Your task to perform on an android device: Search for a new blush Image 0: 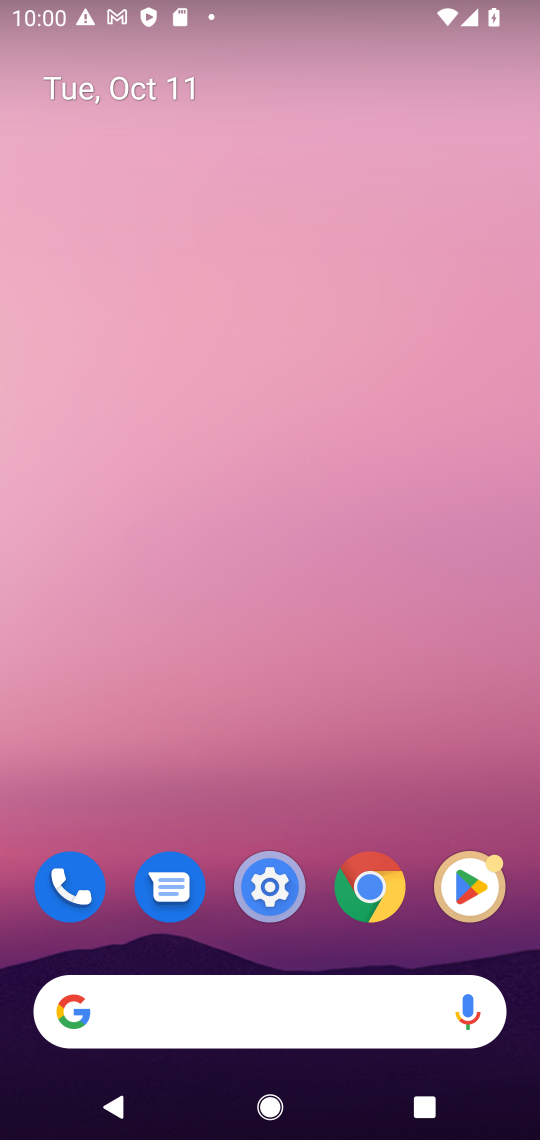
Step 0: press home button
Your task to perform on an android device: Search for a new blush Image 1: 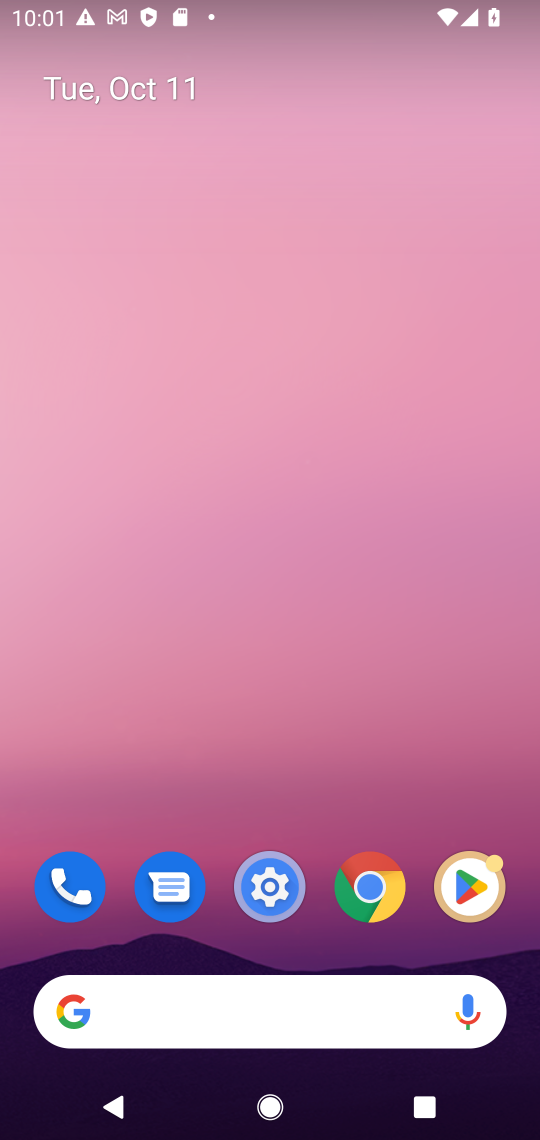
Step 1: click (115, 1015)
Your task to perform on an android device: Search for a new blush Image 2: 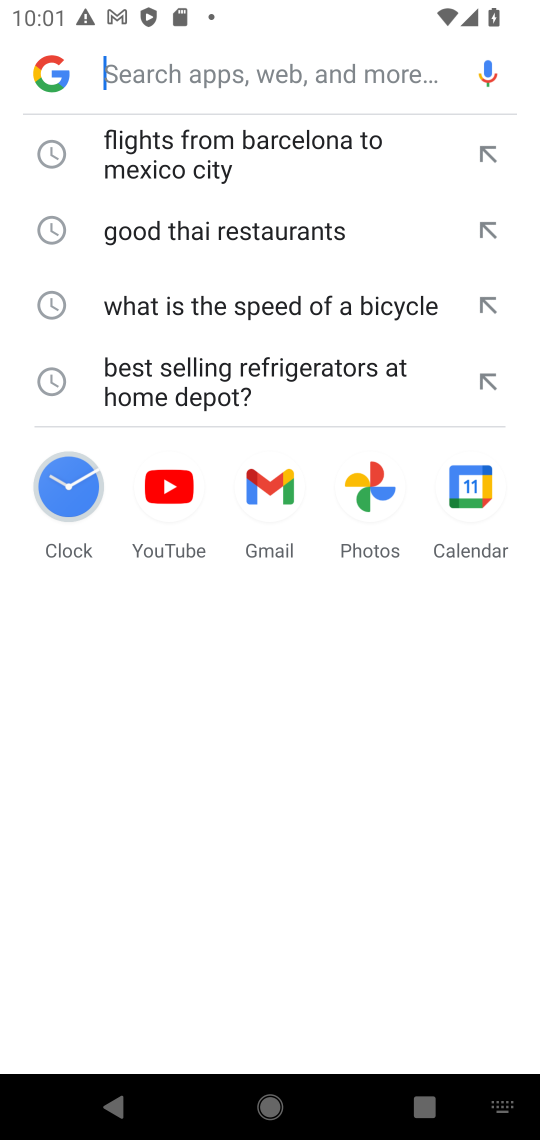
Step 2: type "Search for a new blush"
Your task to perform on an android device: Search for a new blush Image 3: 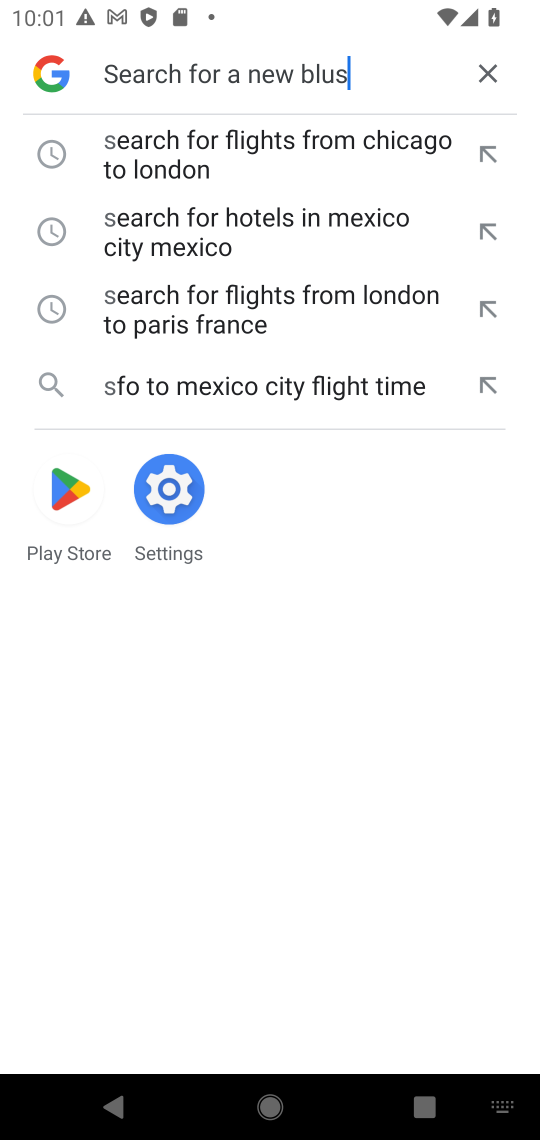
Step 3: press enter
Your task to perform on an android device: Search for a new blush Image 4: 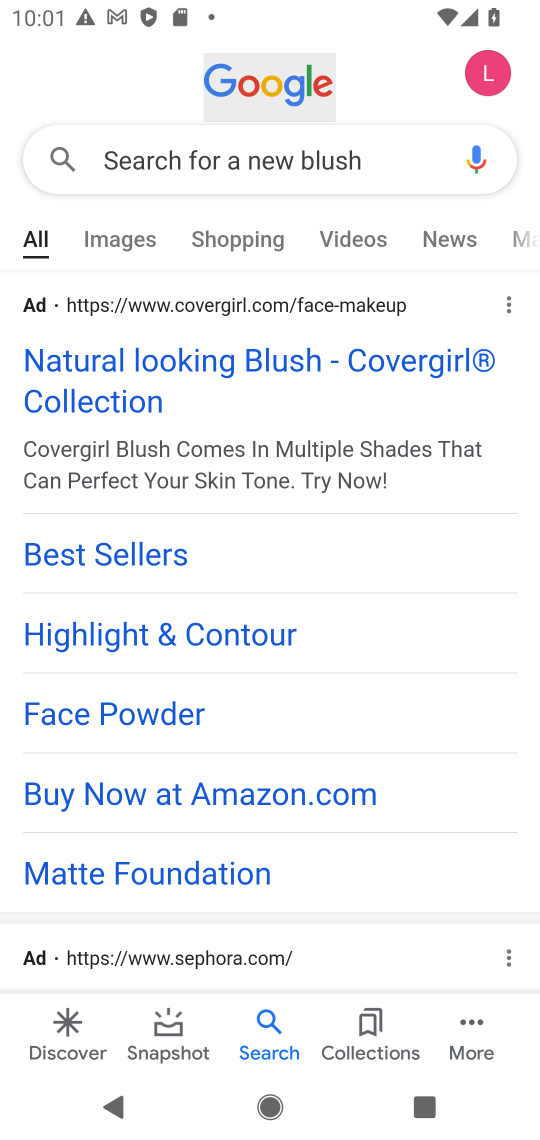
Step 4: click (305, 370)
Your task to perform on an android device: Search for a new blush Image 5: 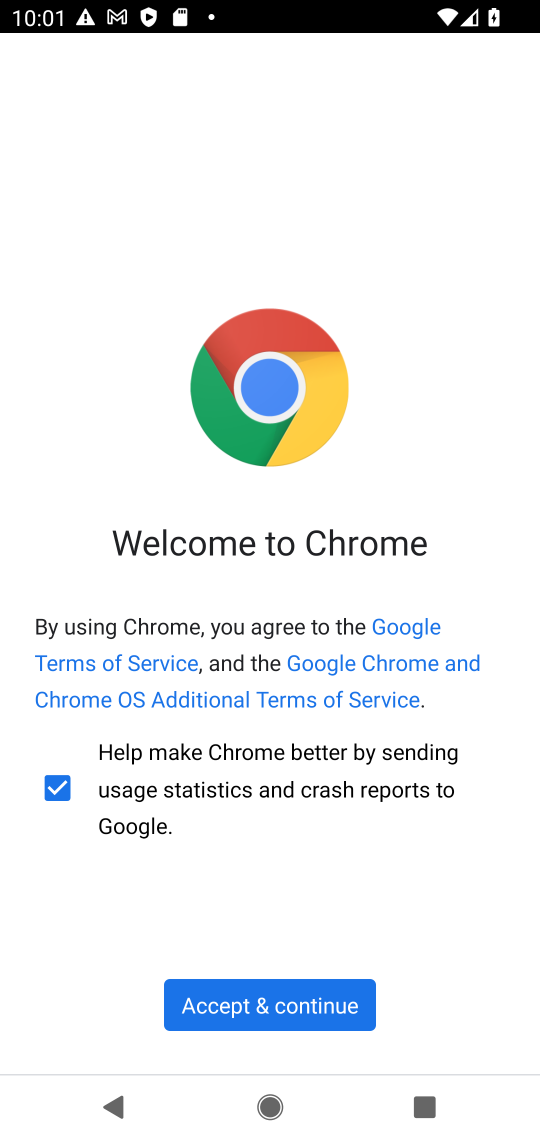
Step 5: click (322, 1020)
Your task to perform on an android device: Search for a new blush Image 6: 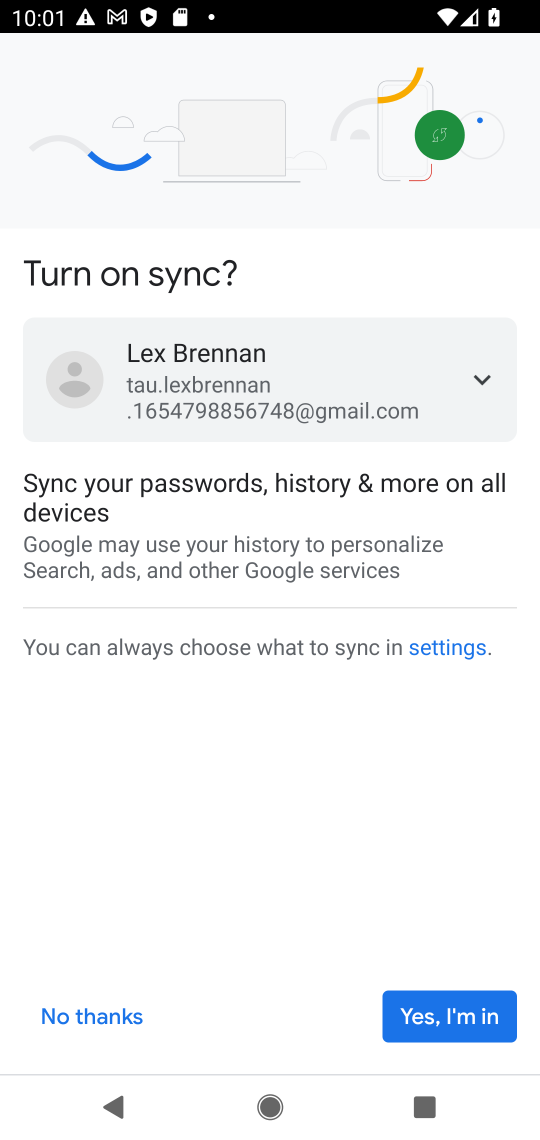
Step 6: click (435, 1018)
Your task to perform on an android device: Search for a new blush Image 7: 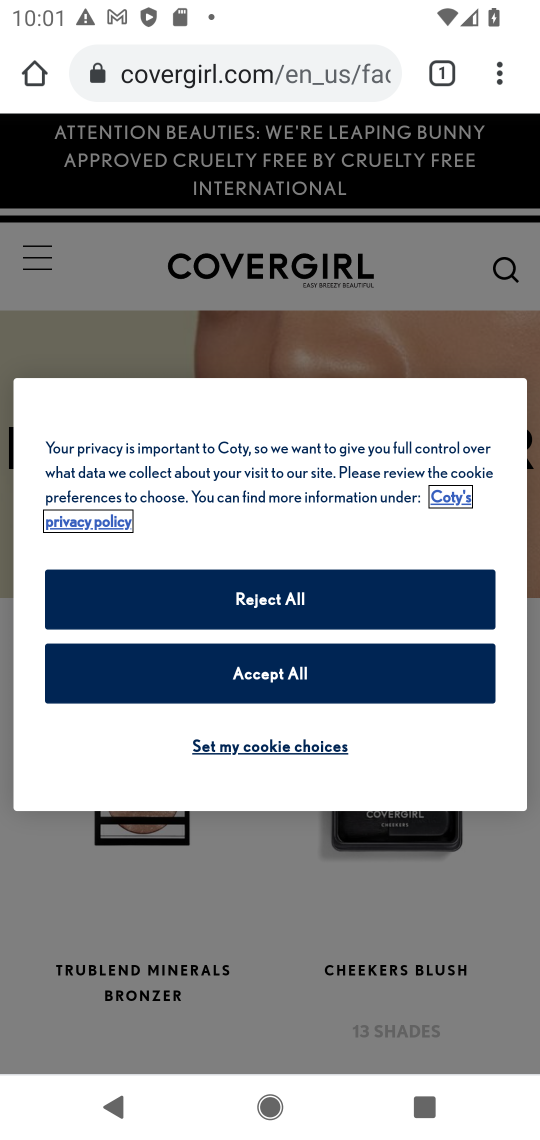
Step 7: click (309, 680)
Your task to perform on an android device: Search for a new blush Image 8: 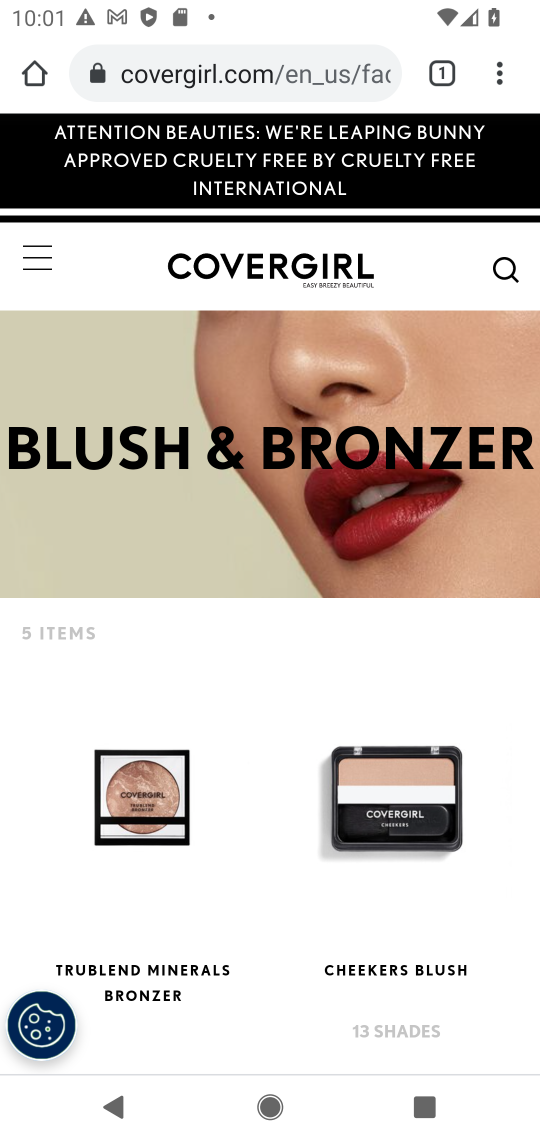
Step 8: task complete